Your task to perform on an android device: What's the weather going to be tomorrow? Image 0: 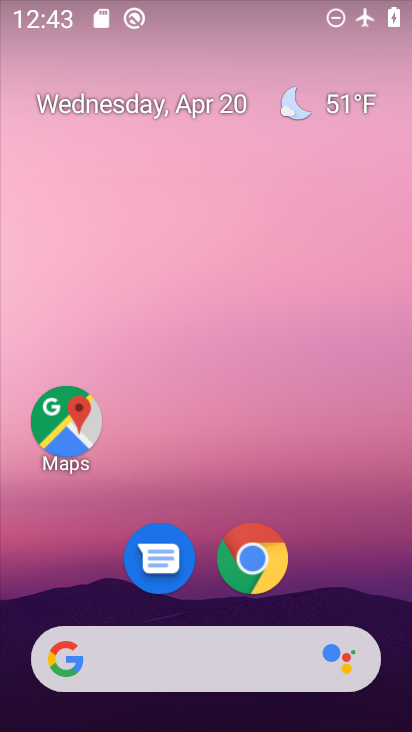
Step 0: click (291, 104)
Your task to perform on an android device: What's the weather going to be tomorrow? Image 1: 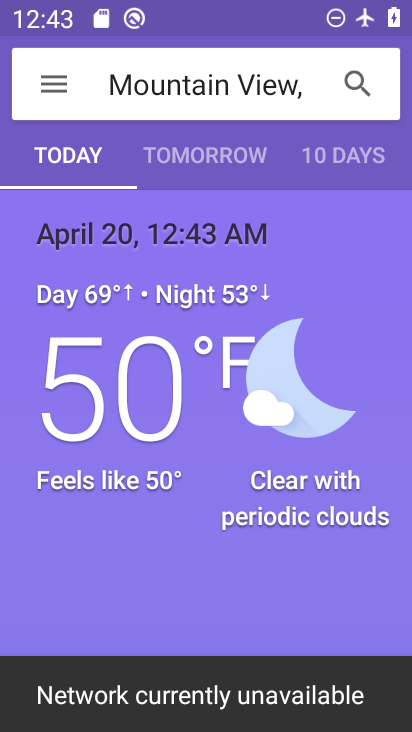
Step 1: click (198, 153)
Your task to perform on an android device: What's the weather going to be tomorrow? Image 2: 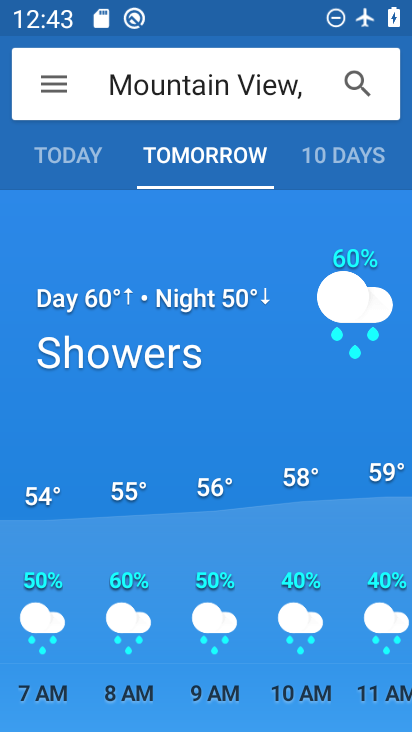
Step 2: task complete